Your task to perform on an android device: Clear all items from cart on bestbuy.com. Add lenovo thinkpad to the cart on bestbuy.com, then select checkout. Image 0: 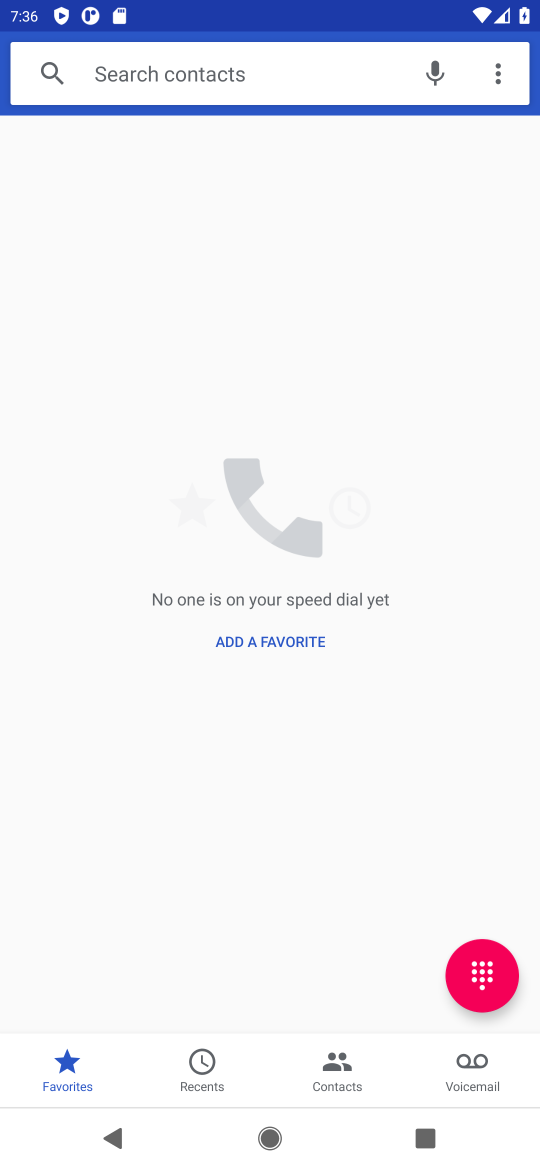
Step 0: press home button
Your task to perform on an android device: Clear all items from cart on bestbuy.com. Add lenovo thinkpad to the cart on bestbuy.com, then select checkout. Image 1: 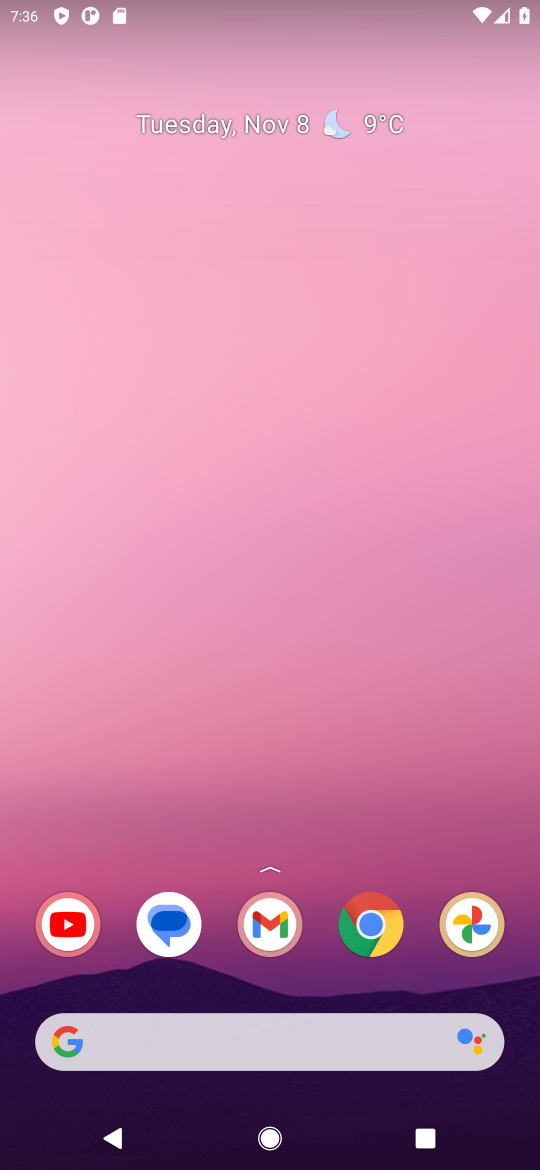
Step 1: click (228, 1028)
Your task to perform on an android device: Clear all items from cart on bestbuy.com. Add lenovo thinkpad to the cart on bestbuy.com, then select checkout. Image 2: 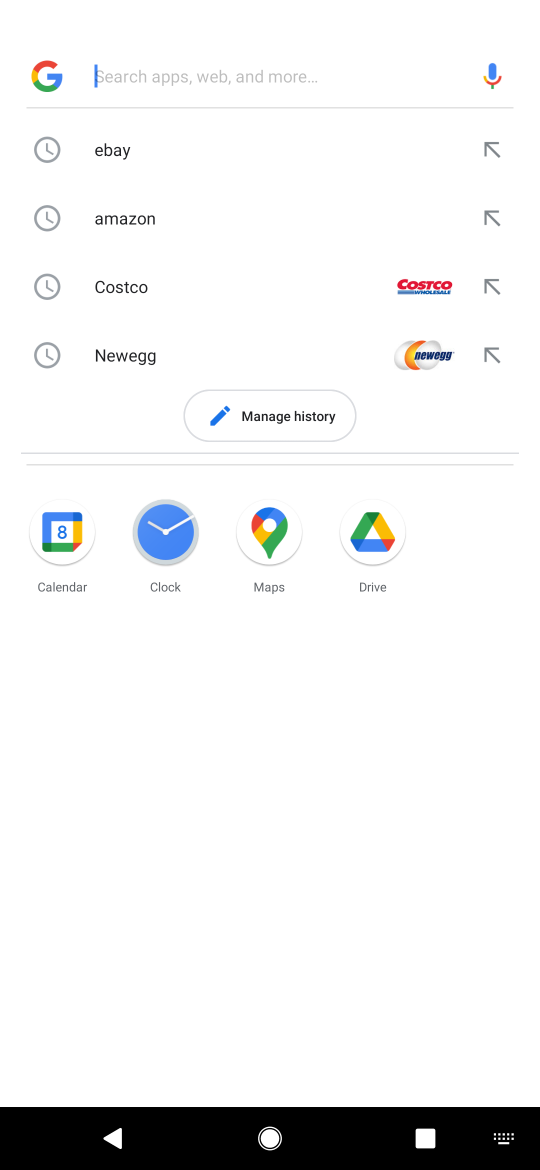
Step 2: type "bestbuy.com"
Your task to perform on an android device: Clear all items from cart on bestbuy.com. Add lenovo thinkpad to the cart on bestbuy.com, then select checkout. Image 3: 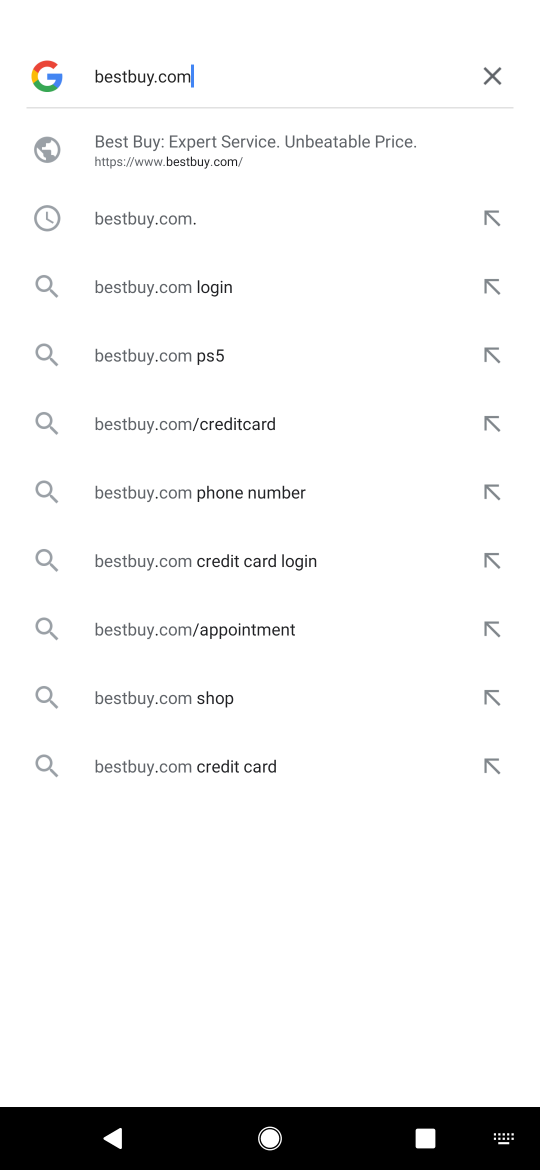
Step 3: click (166, 151)
Your task to perform on an android device: Clear all items from cart on bestbuy.com. Add lenovo thinkpad to the cart on bestbuy.com, then select checkout. Image 4: 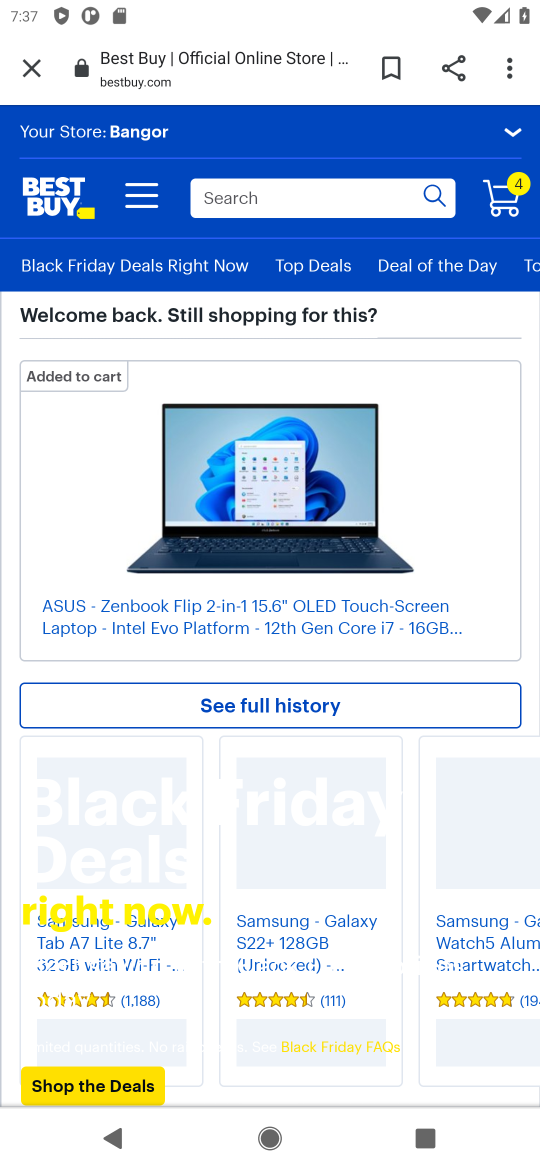
Step 4: click (336, 193)
Your task to perform on an android device: Clear all items from cart on bestbuy.com. Add lenovo thinkpad to the cart on bestbuy.com, then select checkout. Image 5: 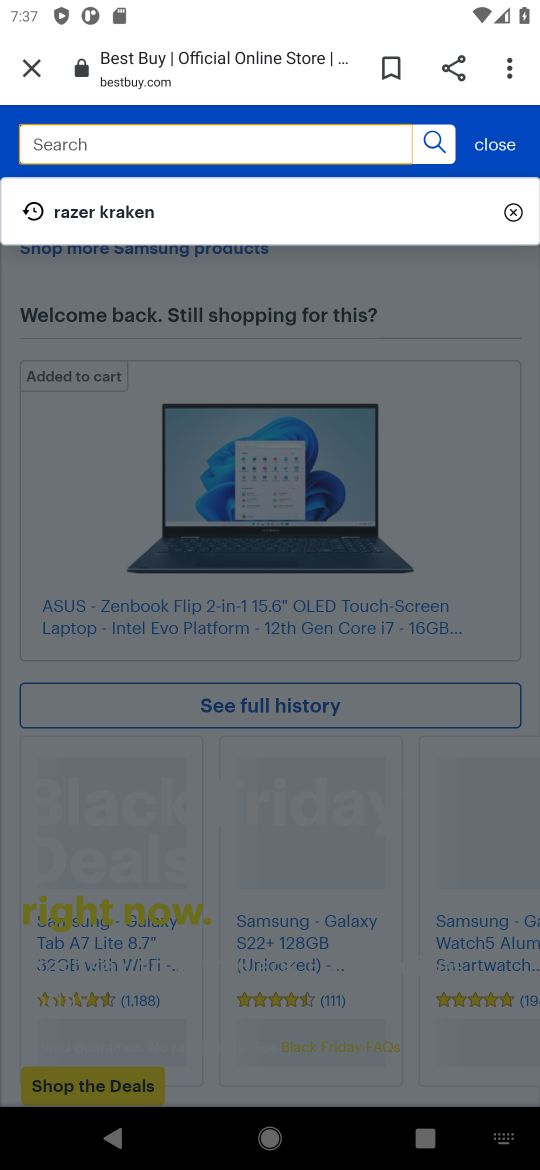
Step 5: type " lenovo thinkpad "
Your task to perform on an android device: Clear all items from cart on bestbuy.com. Add lenovo thinkpad to the cart on bestbuy.com, then select checkout. Image 6: 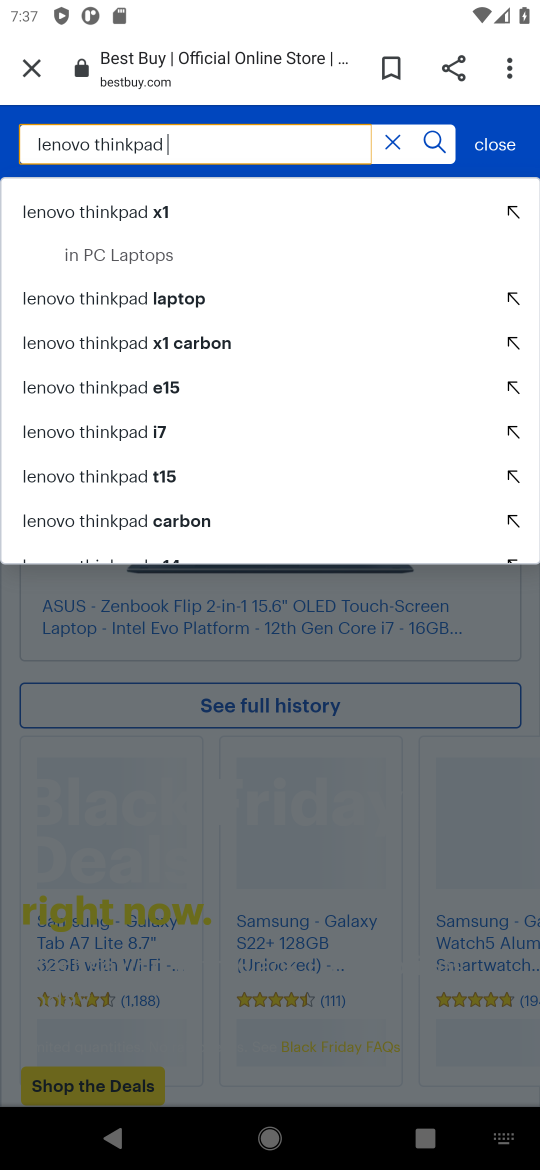
Step 6: click (133, 206)
Your task to perform on an android device: Clear all items from cart on bestbuy.com. Add lenovo thinkpad to the cart on bestbuy.com, then select checkout. Image 7: 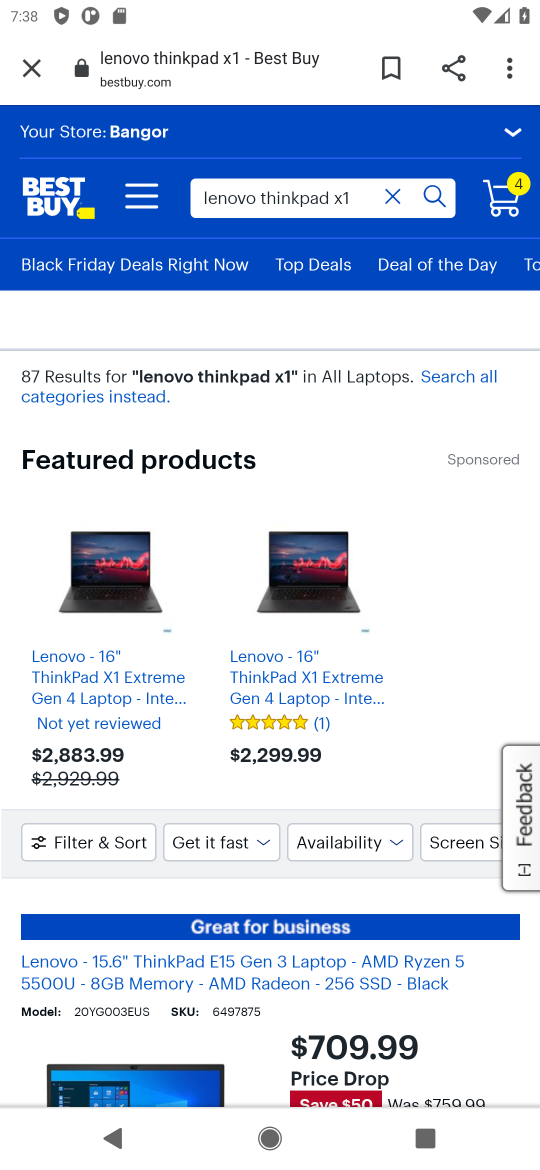
Step 7: drag from (318, 961) to (329, 718)
Your task to perform on an android device: Clear all items from cart on bestbuy.com. Add lenovo thinkpad to the cart on bestbuy.com, then select checkout. Image 8: 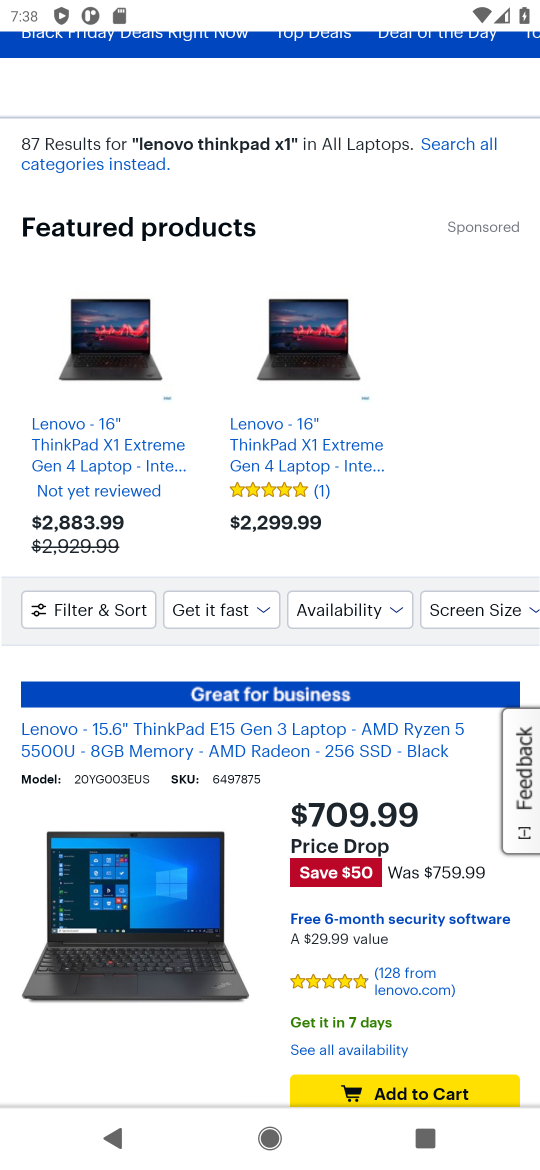
Step 8: click (387, 1081)
Your task to perform on an android device: Clear all items from cart on bestbuy.com. Add lenovo thinkpad to the cart on bestbuy.com, then select checkout. Image 9: 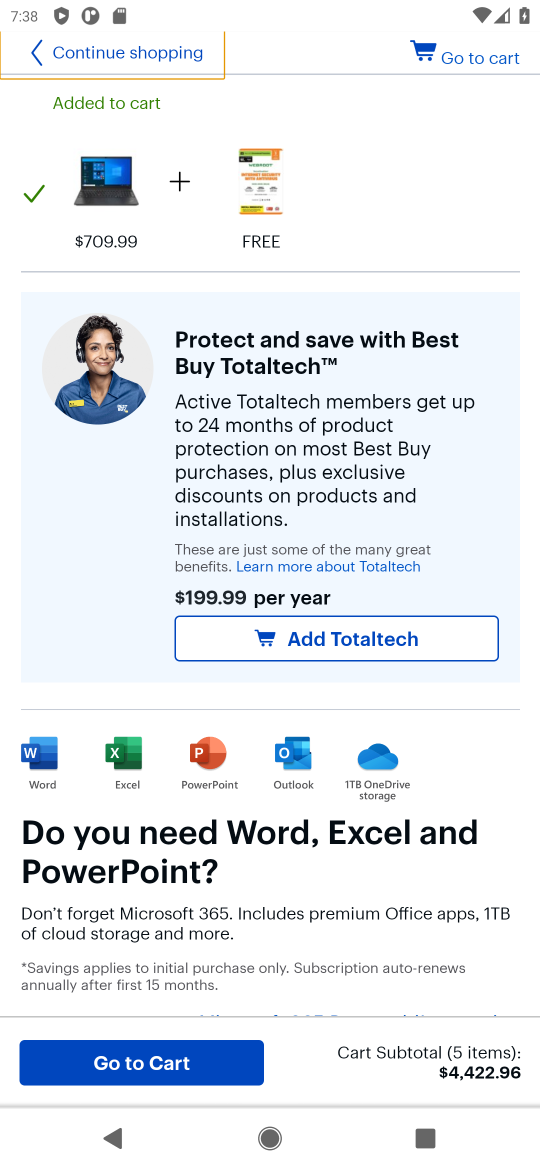
Step 9: click (220, 1051)
Your task to perform on an android device: Clear all items from cart on bestbuy.com. Add lenovo thinkpad to the cart on bestbuy.com, then select checkout. Image 10: 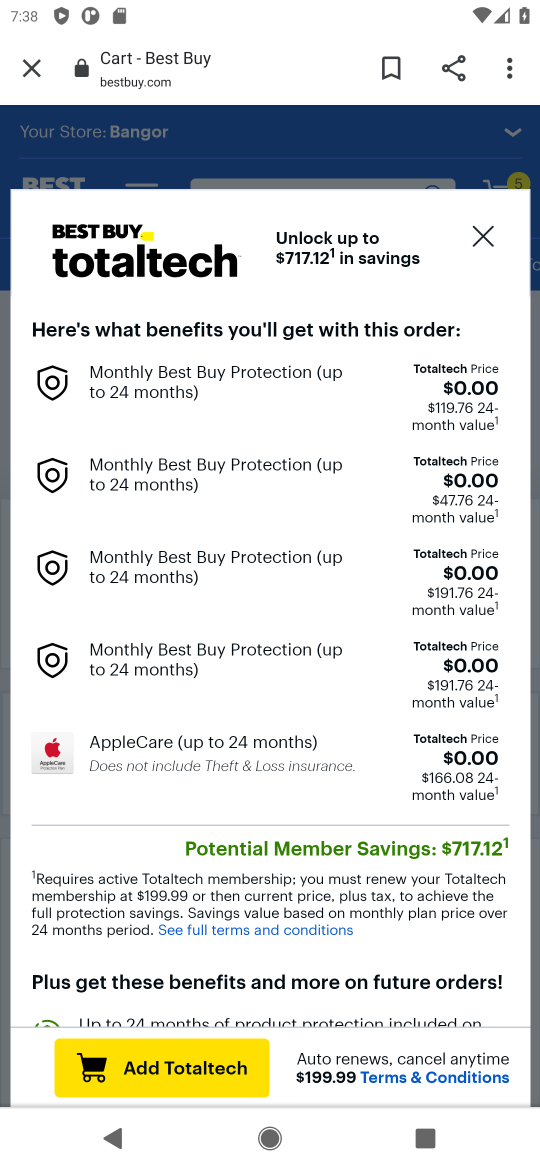
Step 10: click (487, 238)
Your task to perform on an android device: Clear all items from cart on bestbuy.com. Add lenovo thinkpad to the cart on bestbuy.com, then select checkout. Image 11: 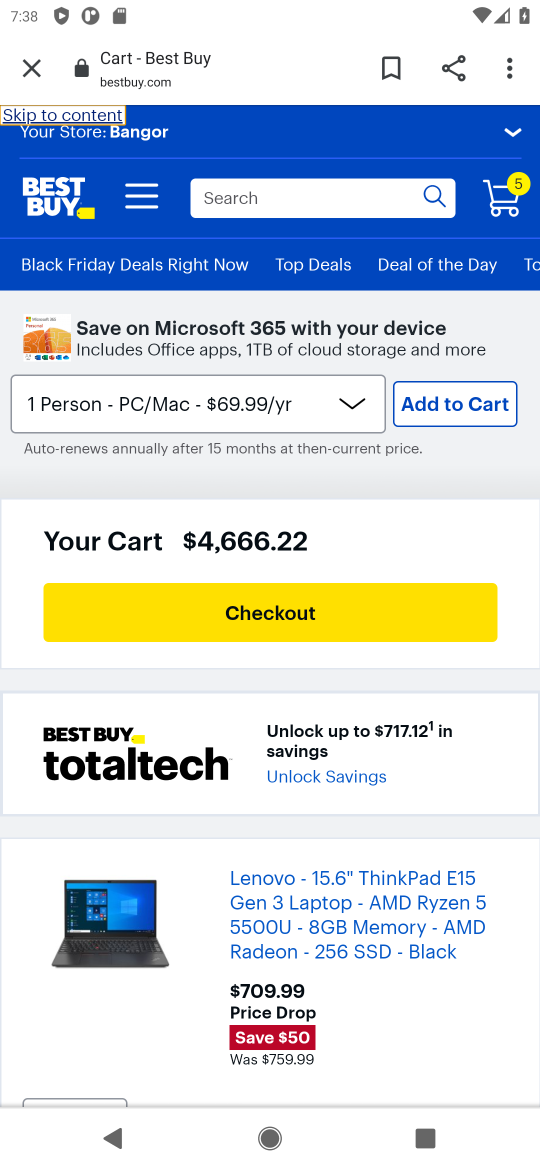
Step 11: click (259, 606)
Your task to perform on an android device: Clear all items from cart on bestbuy.com. Add lenovo thinkpad to the cart on bestbuy.com, then select checkout. Image 12: 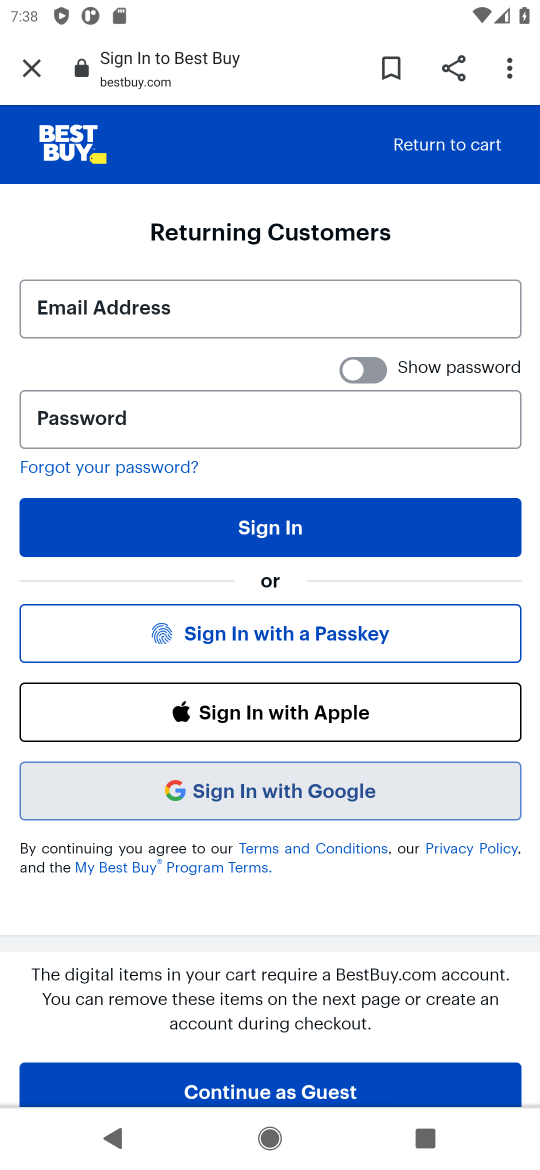
Step 12: task complete